Your task to perform on an android device: Show the shopping cart on bestbuy. Search for beats solo 3 on bestbuy, select the first entry, add it to the cart, then select checkout. Image 0: 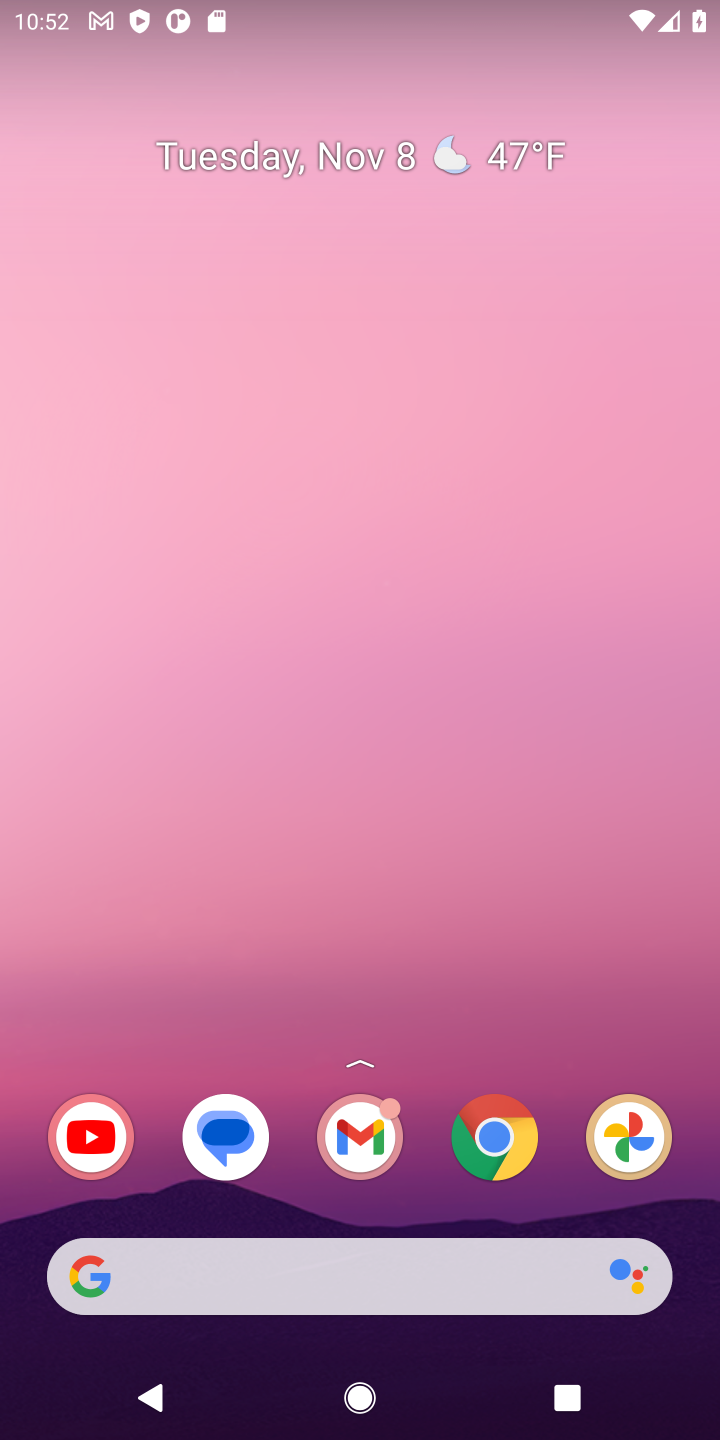
Step 0: click (499, 1131)
Your task to perform on an android device: Show the shopping cart on bestbuy. Search for beats solo 3 on bestbuy, select the first entry, add it to the cart, then select checkout. Image 1: 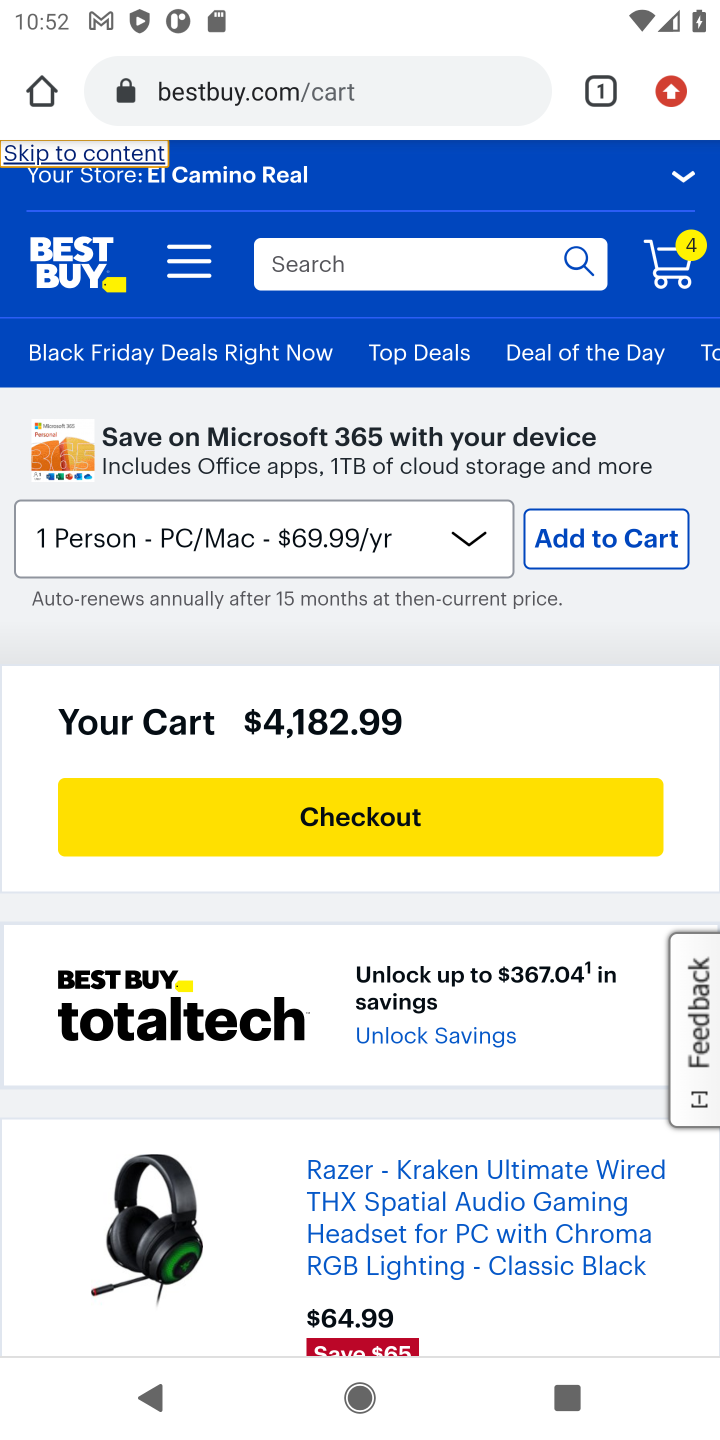
Step 1: click (390, 90)
Your task to perform on an android device: Show the shopping cart on bestbuy. Search for beats solo 3 on bestbuy, select the first entry, add it to the cart, then select checkout. Image 2: 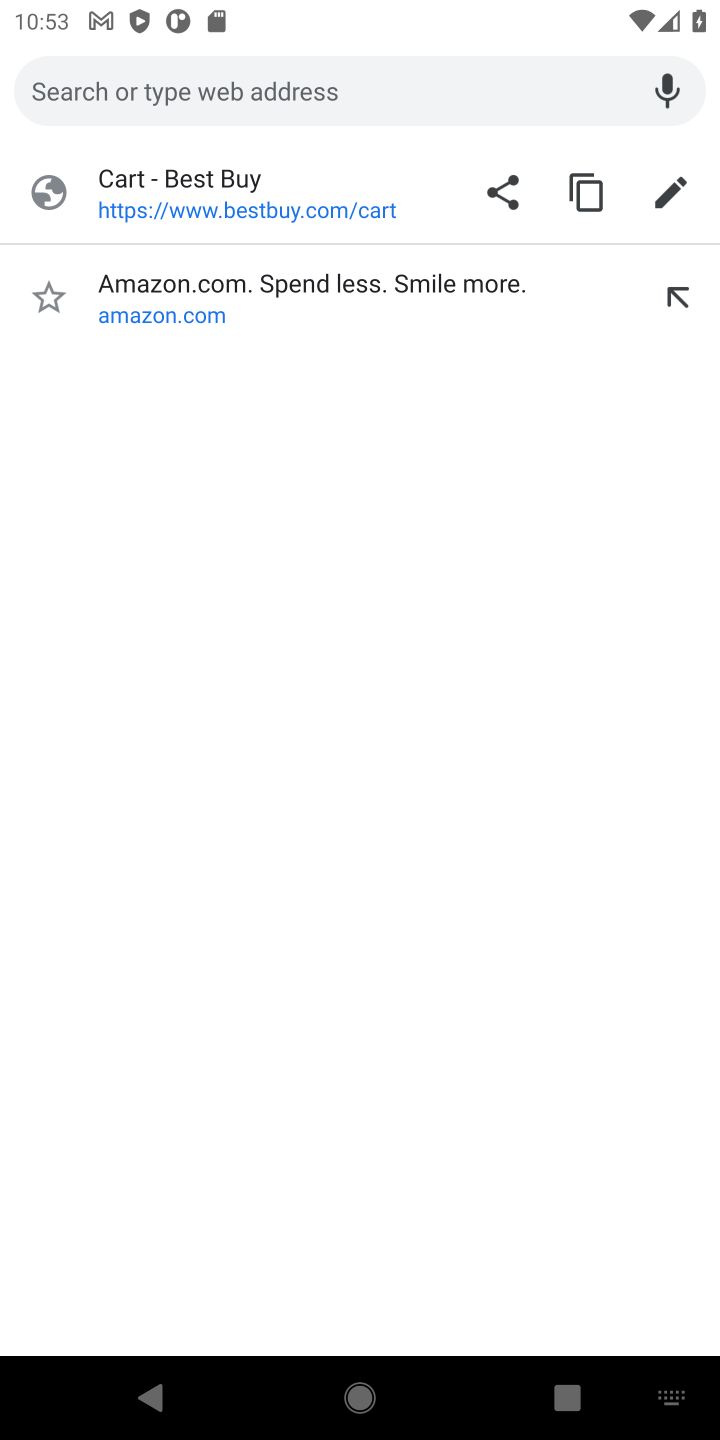
Step 2: type "bestbuy"
Your task to perform on an android device: Show the shopping cart on bestbuy. Search for beats solo 3 on bestbuy, select the first entry, add it to the cart, then select checkout. Image 3: 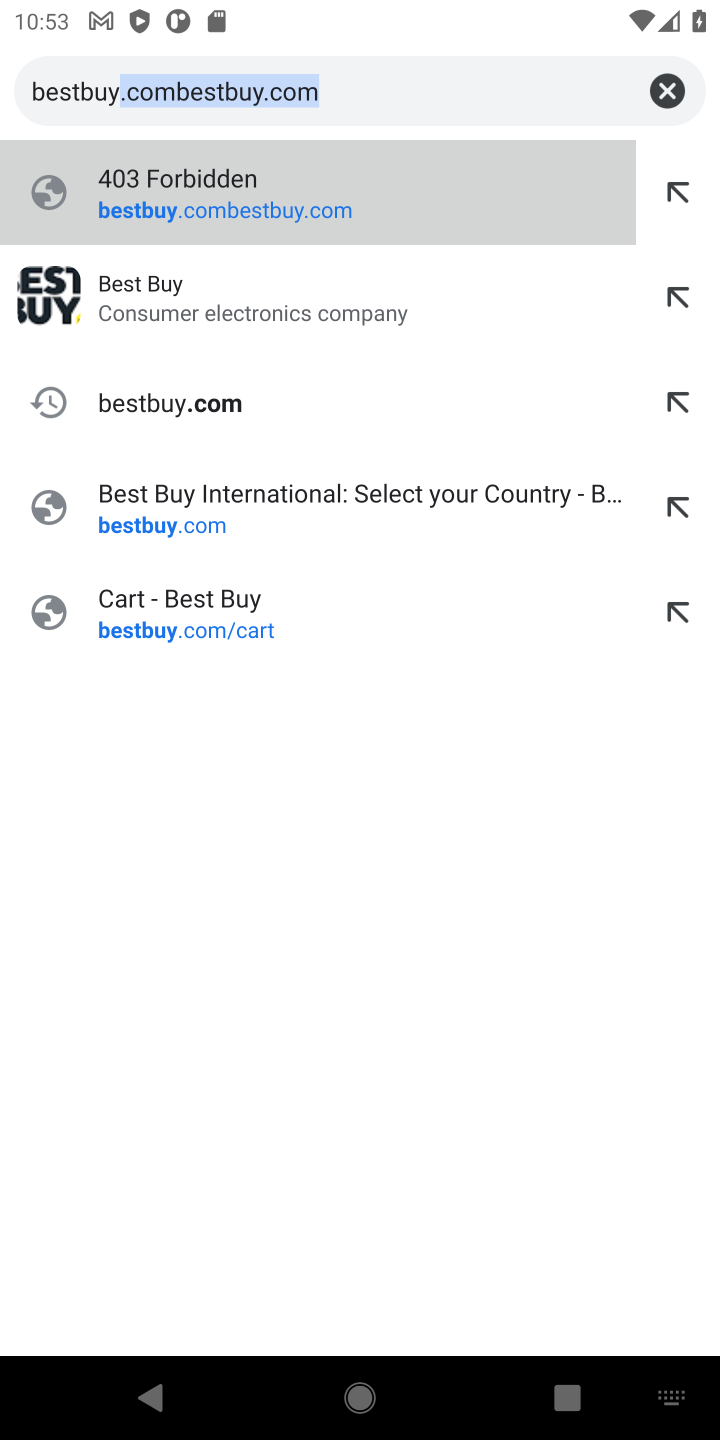
Step 3: click (167, 283)
Your task to perform on an android device: Show the shopping cart on bestbuy. Search for beats solo 3 on bestbuy, select the first entry, add it to the cart, then select checkout. Image 4: 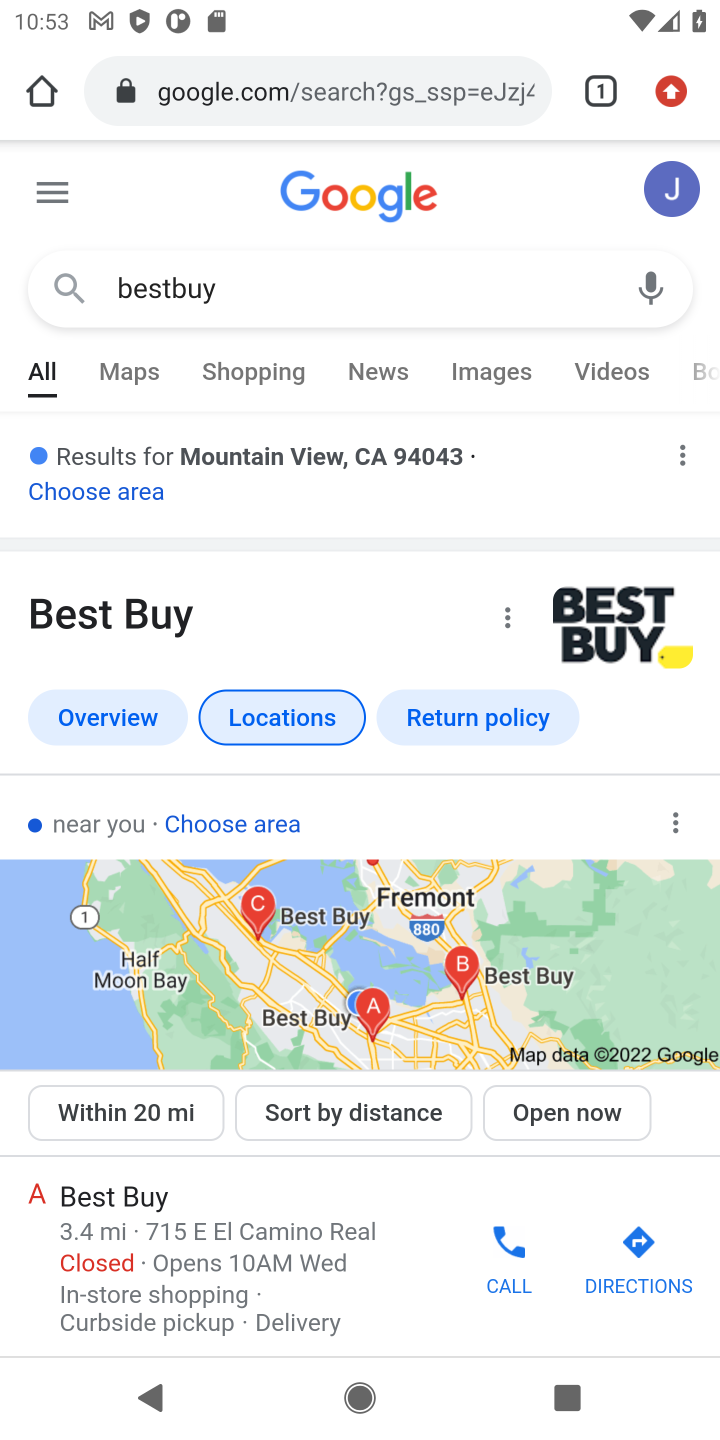
Step 4: drag from (297, 1024) to (358, 444)
Your task to perform on an android device: Show the shopping cart on bestbuy. Search for beats solo 3 on bestbuy, select the first entry, add it to the cart, then select checkout. Image 5: 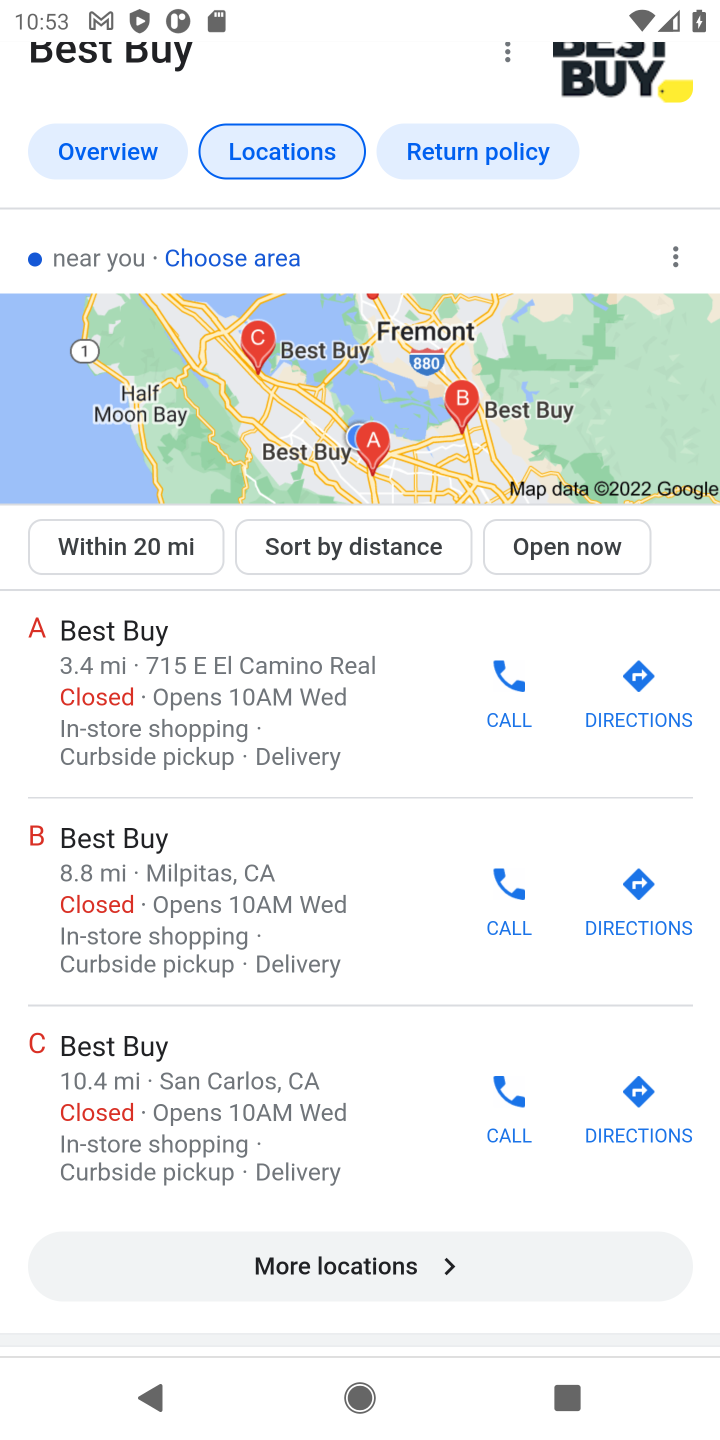
Step 5: drag from (291, 993) to (497, 239)
Your task to perform on an android device: Show the shopping cart on bestbuy. Search for beats solo 3 on bestbuy, select the first entry, add it to the cart, then select checkout. Image 6: 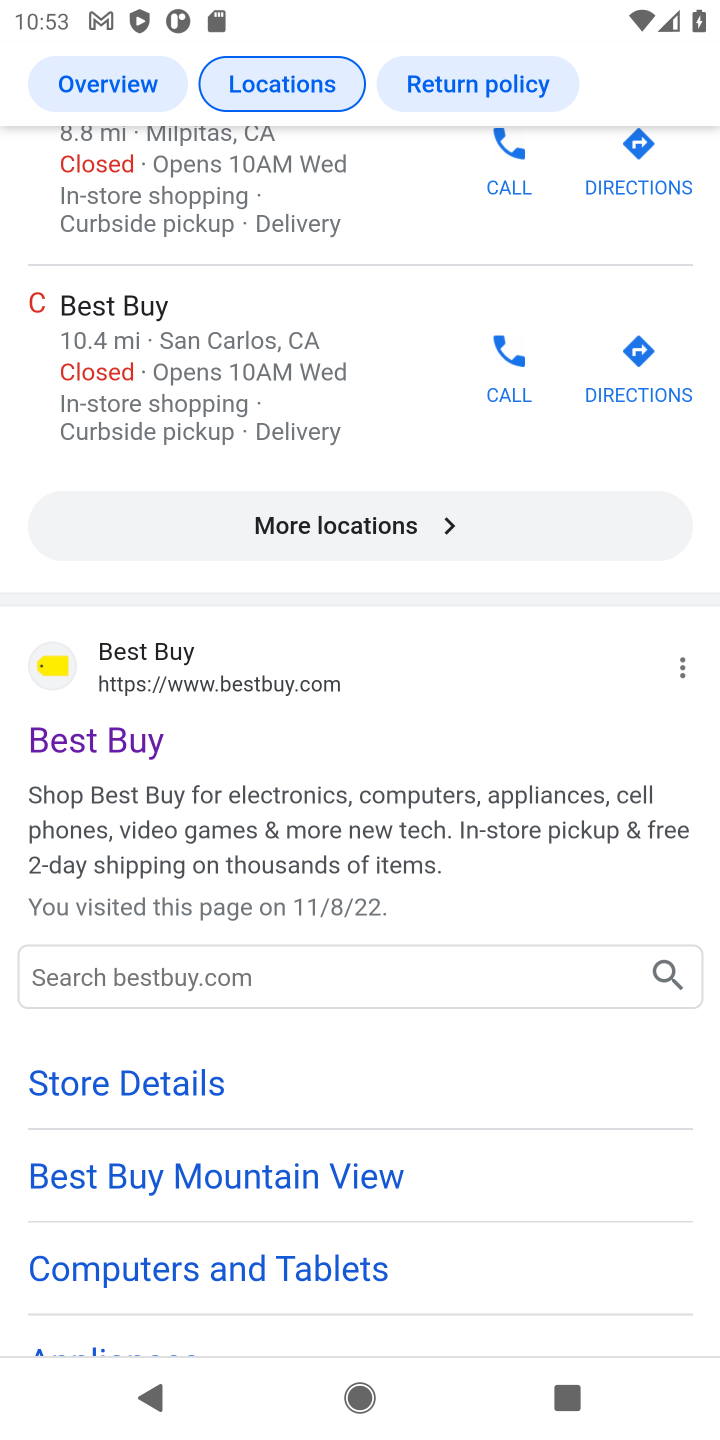
Step 6: click (127, 758)
Your task to perform on an android device: Show the shopping cart on bestbuy. Search for beats solo 3 on bestbuy, select the first entry, add it to the cart, then select checkout. Image 7: 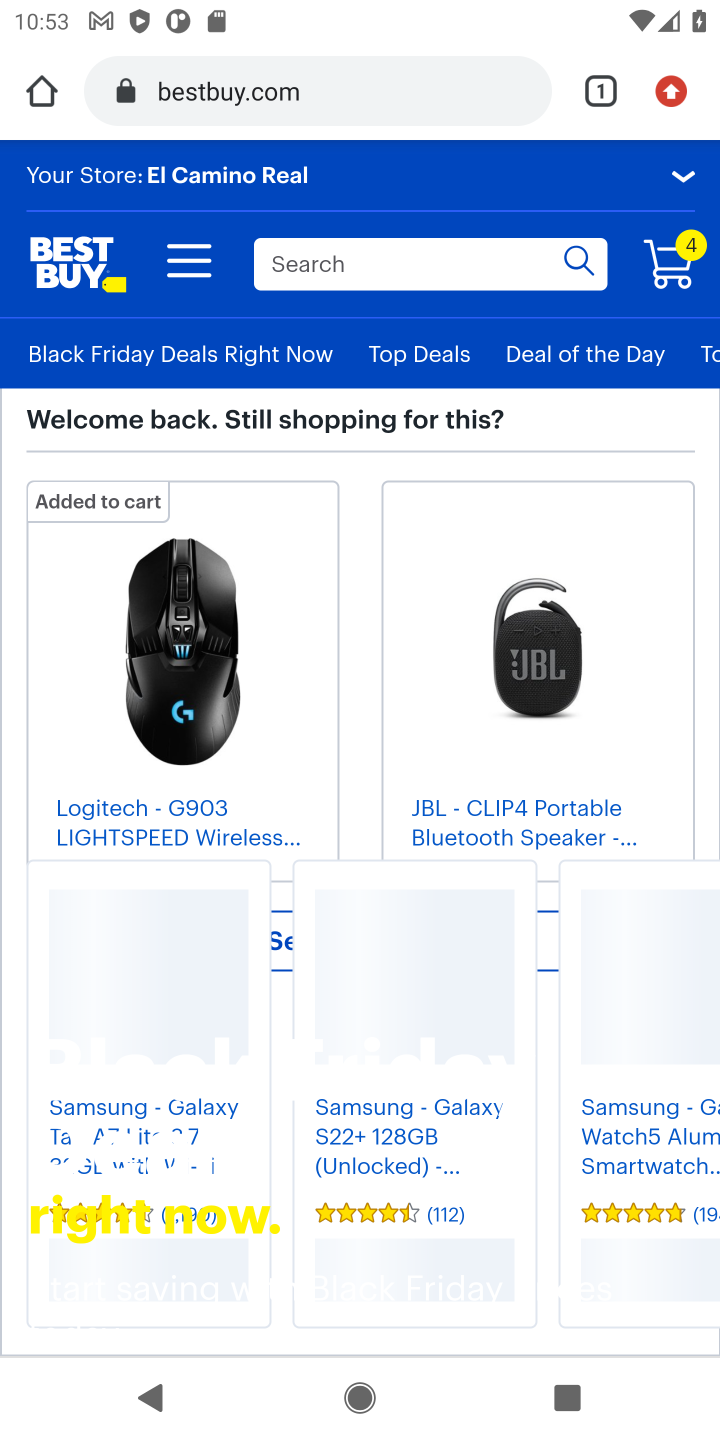
Step 7: click (496, 253)
Your task to perform on an android device: Show the shopping cart on bestbuy. Search for beats solo 3 on bestbuy, select the first entry, add it to the cart, then select checkout. Image 8: 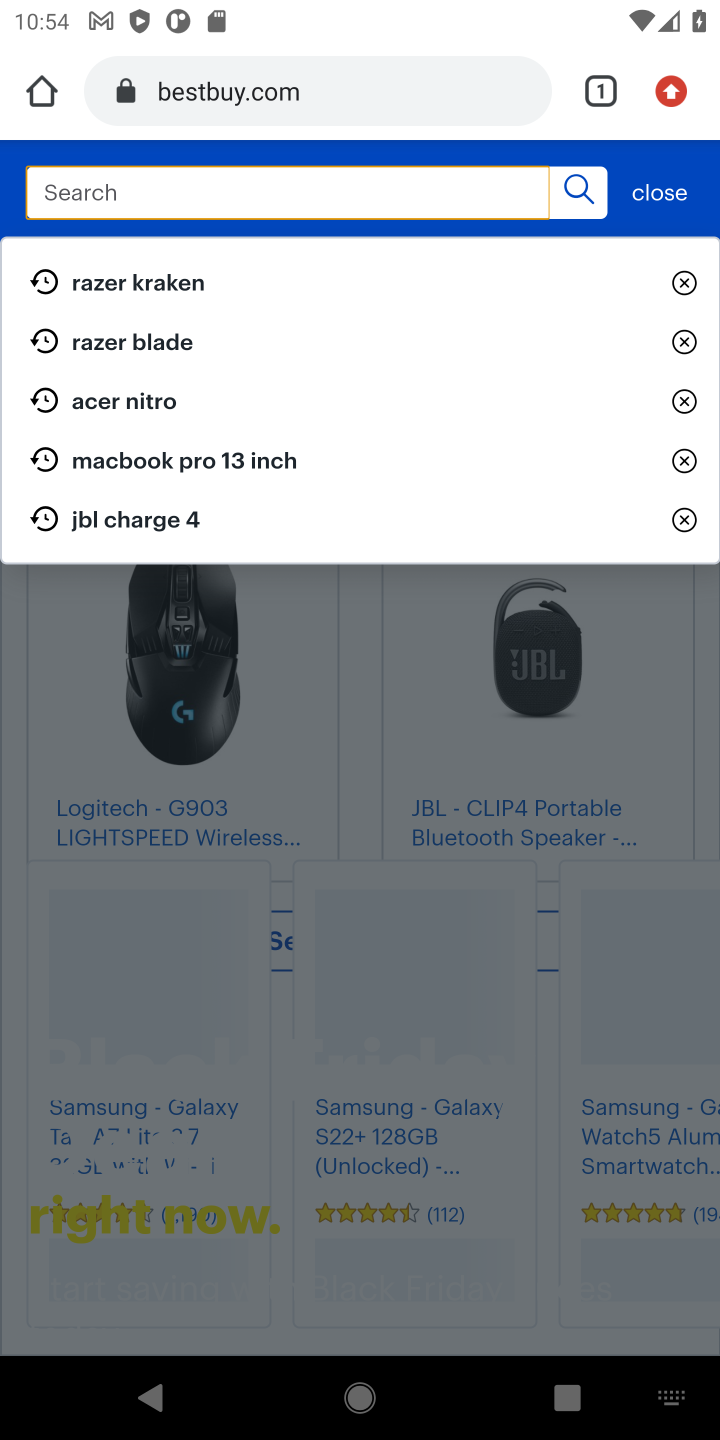
Step 8: type "beats solo 3"
Your task to perform on an android device: Show the shopping cart on bestbuy. Search for beats solo 3 on bestbuy, select the first entry, add it to the cart, then select checkout. Image 9: 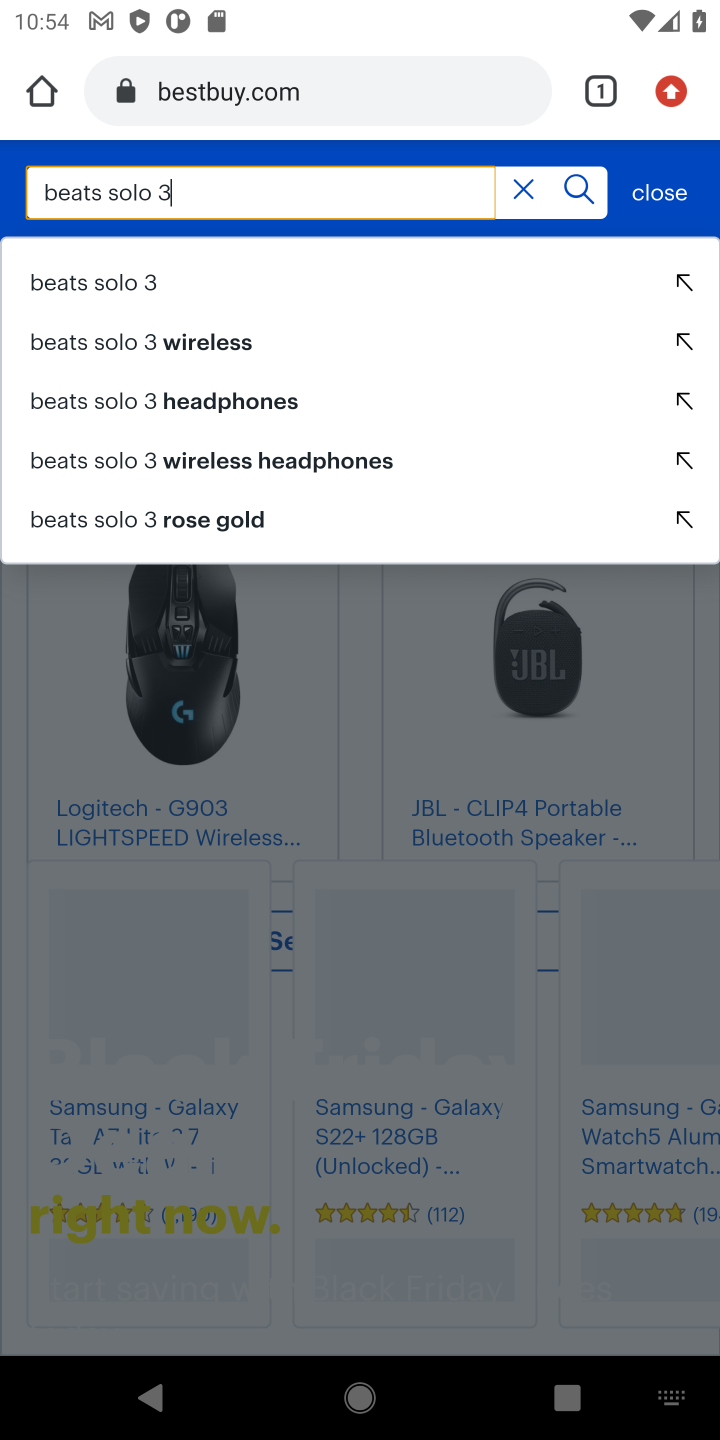
Step 9: click (124, 291)
Your task to perform on an android device: Show the shopping cart on bestbuy. Search for beats solo 3 on bestbuy, select the first entry, add it to the cart, then select checkout. Image 10: 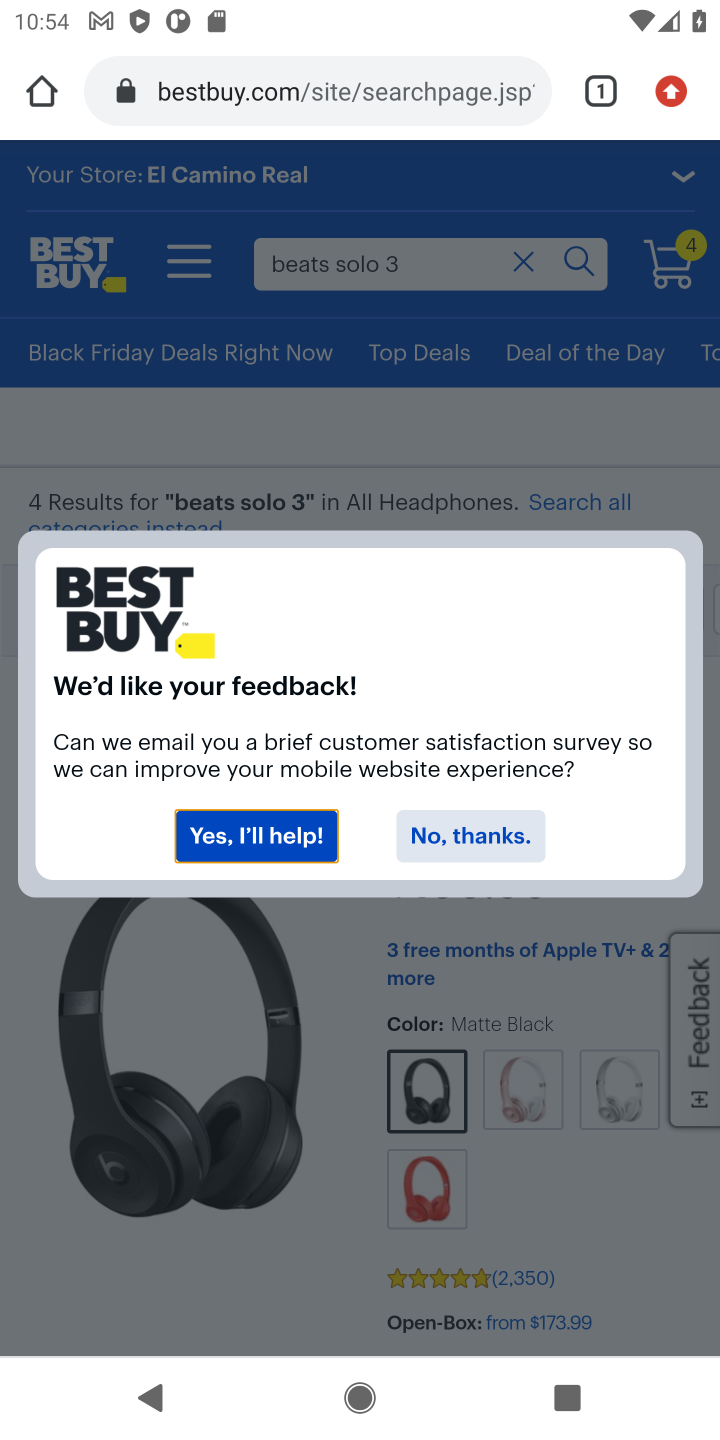
Step 10: click (438, 840)
Your task to perform on an android device: Show the shopping cart on bestbuy. Search for beats solo 3 on bestbuy, select the first entry, add it to the cart, then select checkout. Image 11: 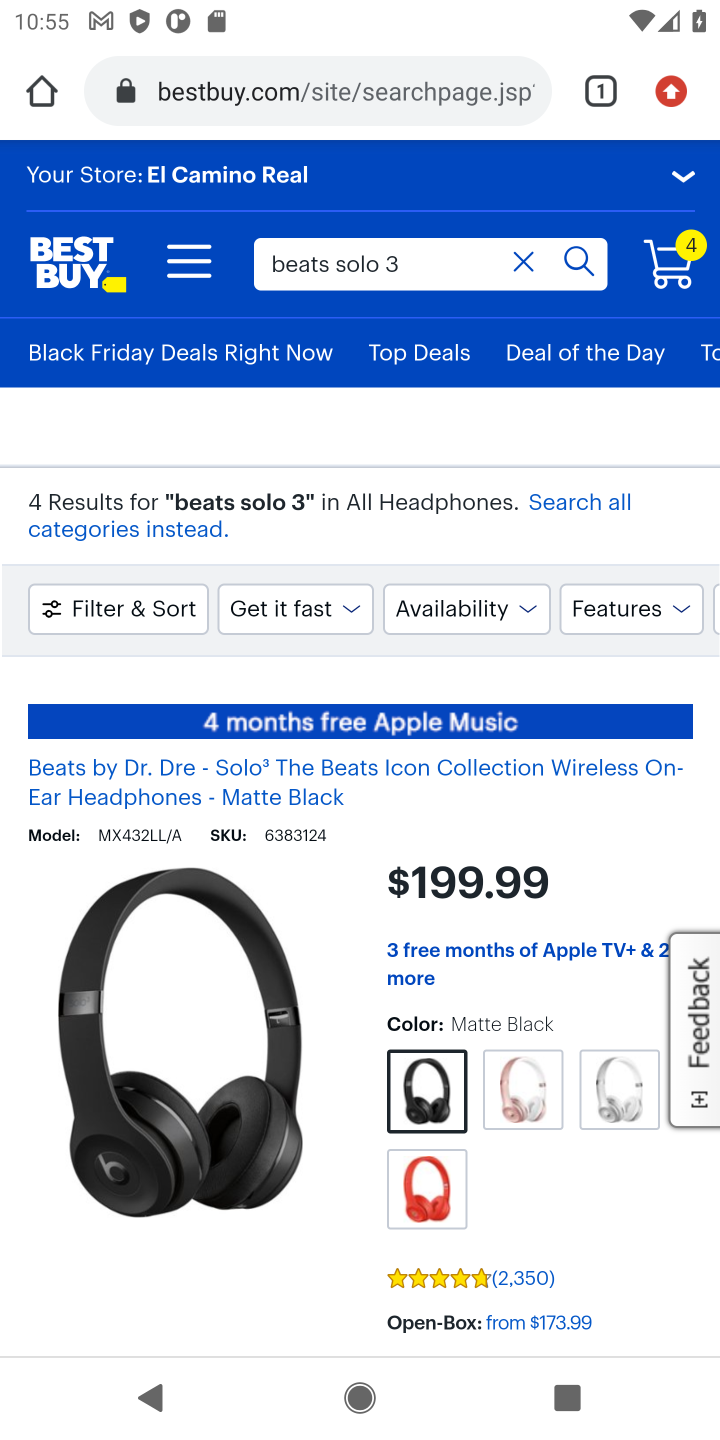
Step 11: click (507, 891)
Your task to perform on an android device: Show the shopping cart on bestbuy. Search for beats solo 3 on bestbuy, select the first entry, add it to the cart, then select checkout. Image 12: 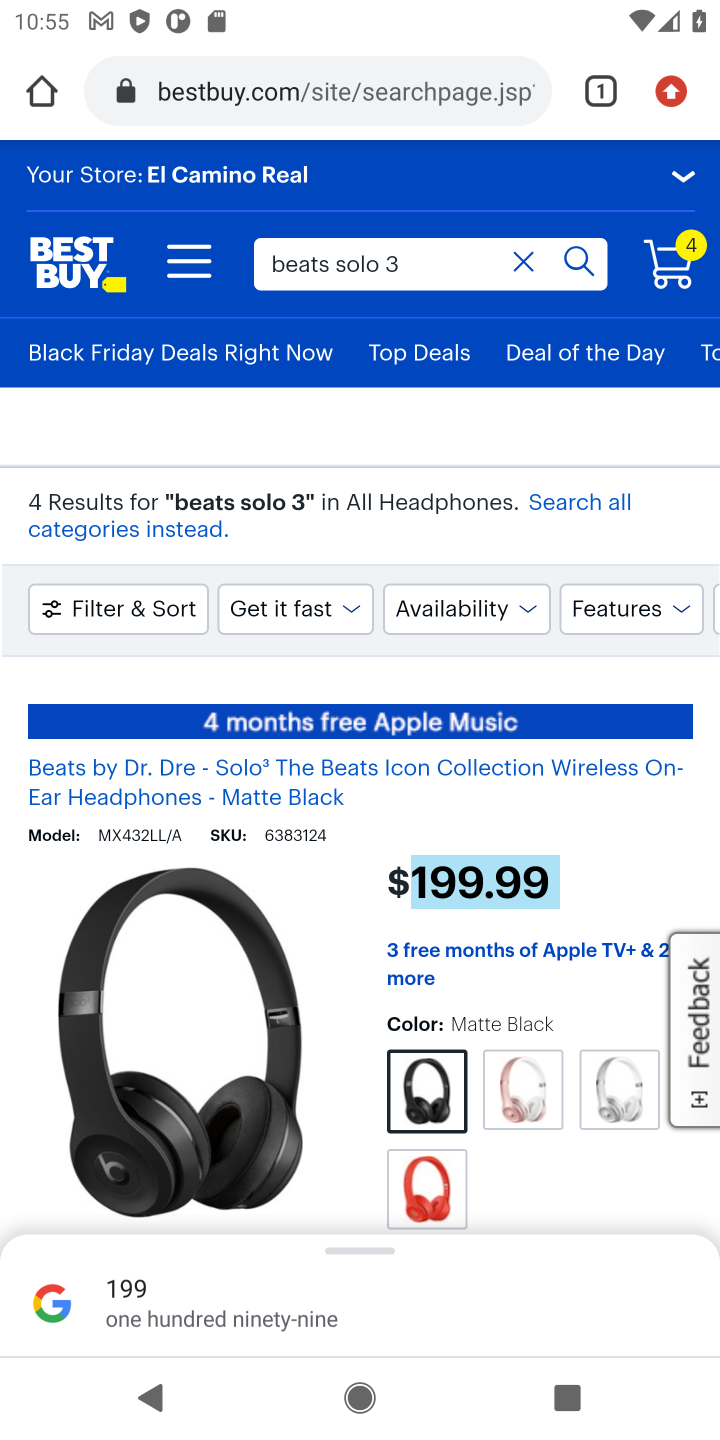
Step 12: click (364, 983)
Your task to perform on an android device: Show the shopping cart on bestbuy. Search for beats solo 3 on bestbuy, select the first entry, add it to the cart, then select checkout. Image 13: 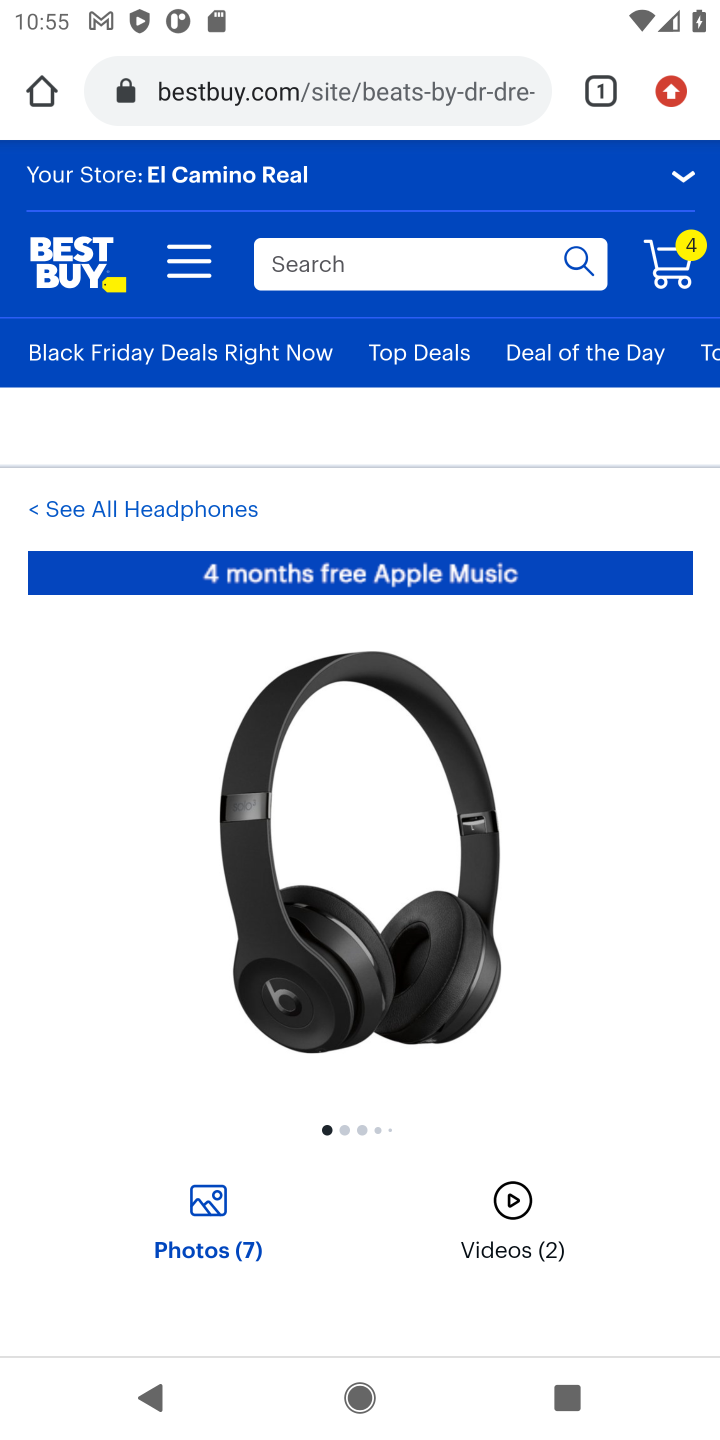
Step 13: drag from (487, 1017) to (572, 401)
Your task to perform on an android device: Show the shopping cart on bestbuy. Search for beats solo 3 on bestbuy, select the first entry, add it to the cart, then select checkout. Image 14: 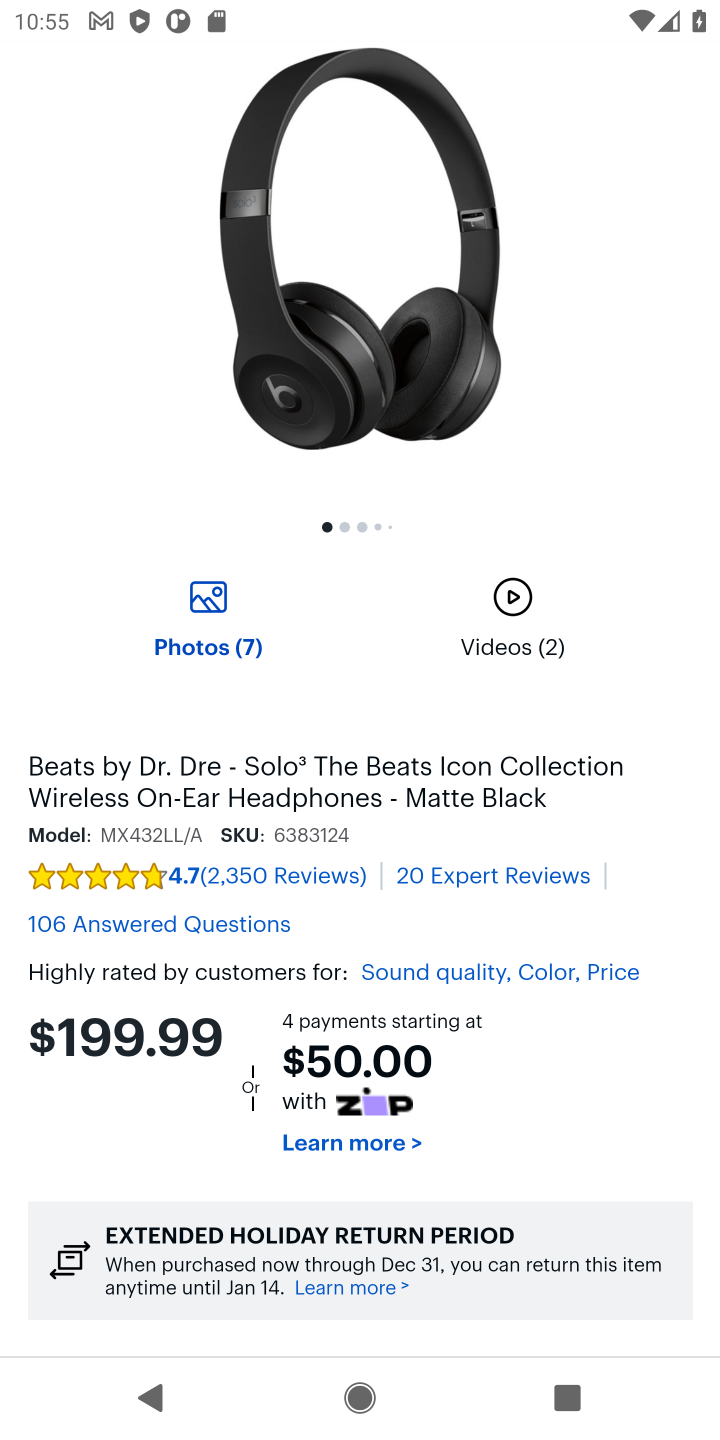
Step 14: drag from (514, 994) to (542, 436)
Your task to perform on an android device: Show the shopping cart on bestbuy. Search for beats solo 3 on bestbuy, select the first entry, add it to the cart, then select checkout. Image 15: 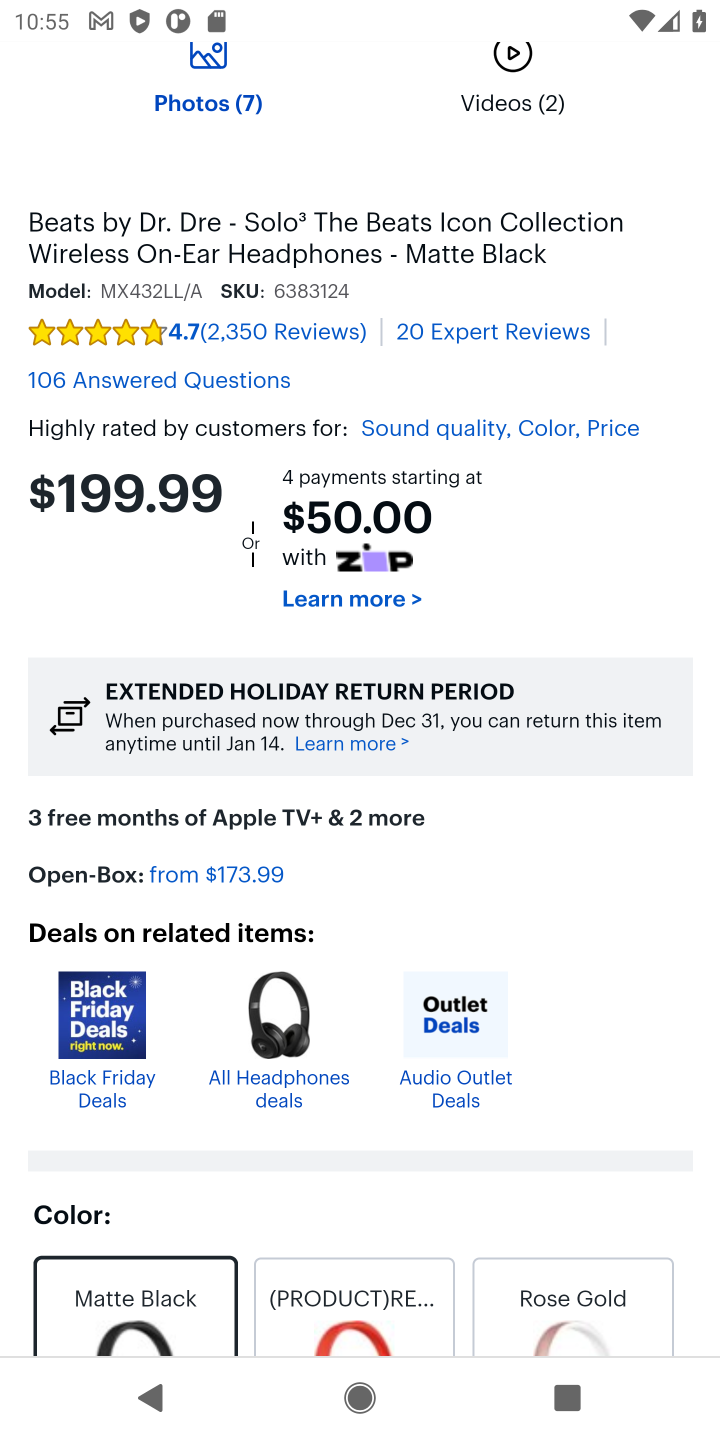
Step 15: drag from (516, 936) to (533, 399)
Your task to perform on an android device: Show the shopping cart on bestbuy. Search for beats solo 3 on bestbuy, select the first entry, add it to the cart, then select checkout. Image 16: 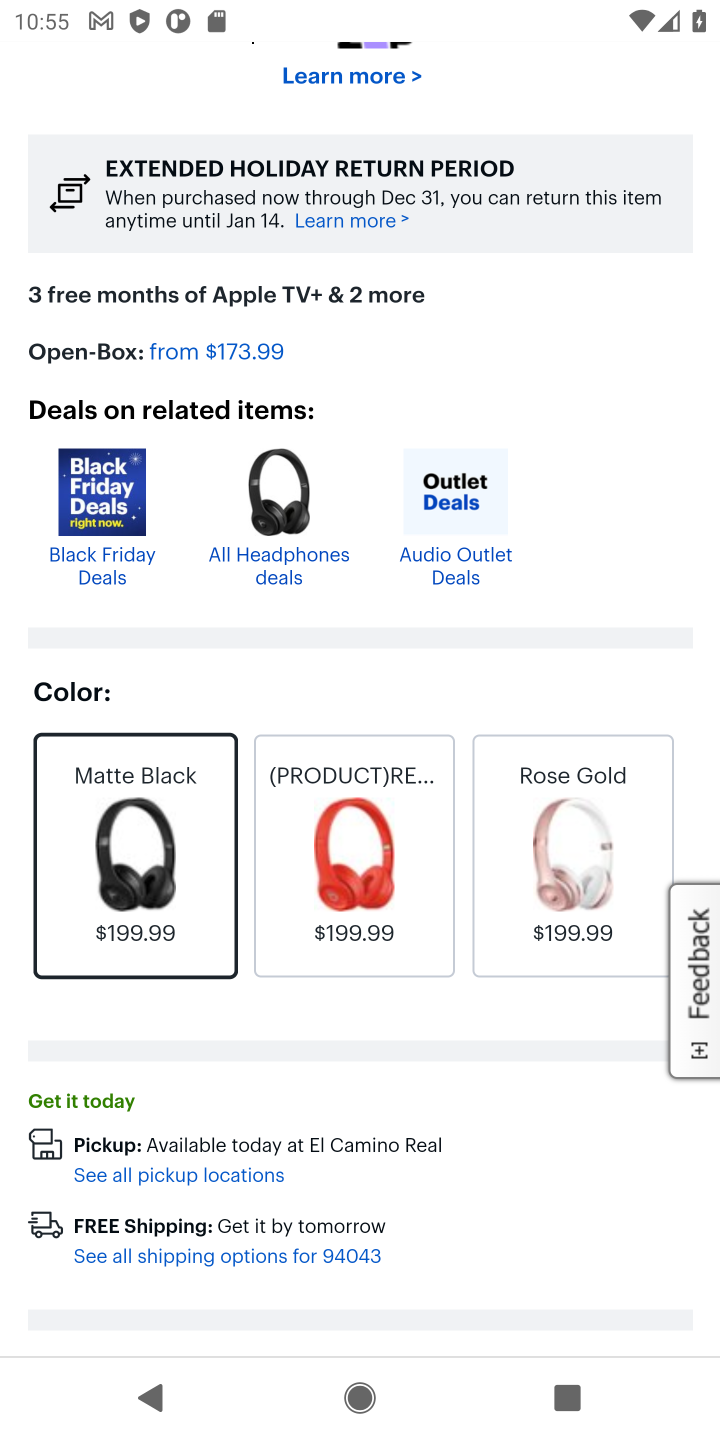
Step 16: drag from (477, 1050) to (501, 163)
Your task to perform on an android device: Show the shopping cart on bestbuy. Search for beats solo 3 on bestbuy, select the first entry, add it to the cart, then select checkout. Image 17: 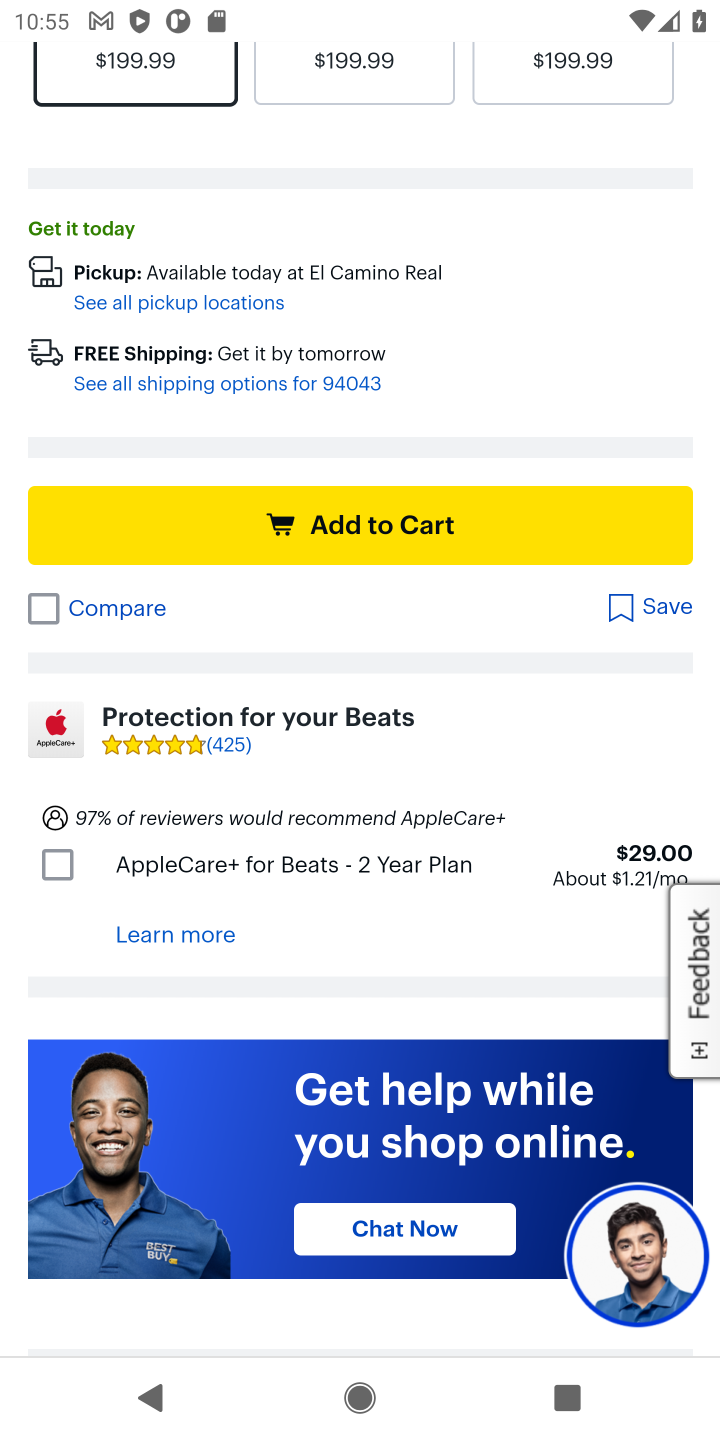
Step 17: click (359, 521)
Your task to perform on an android device: Show the shopping cart on bestbuy. Search for beats solo 3 on bestbuy, select the first entry, add it to the cart, then select checkout. Image 18: 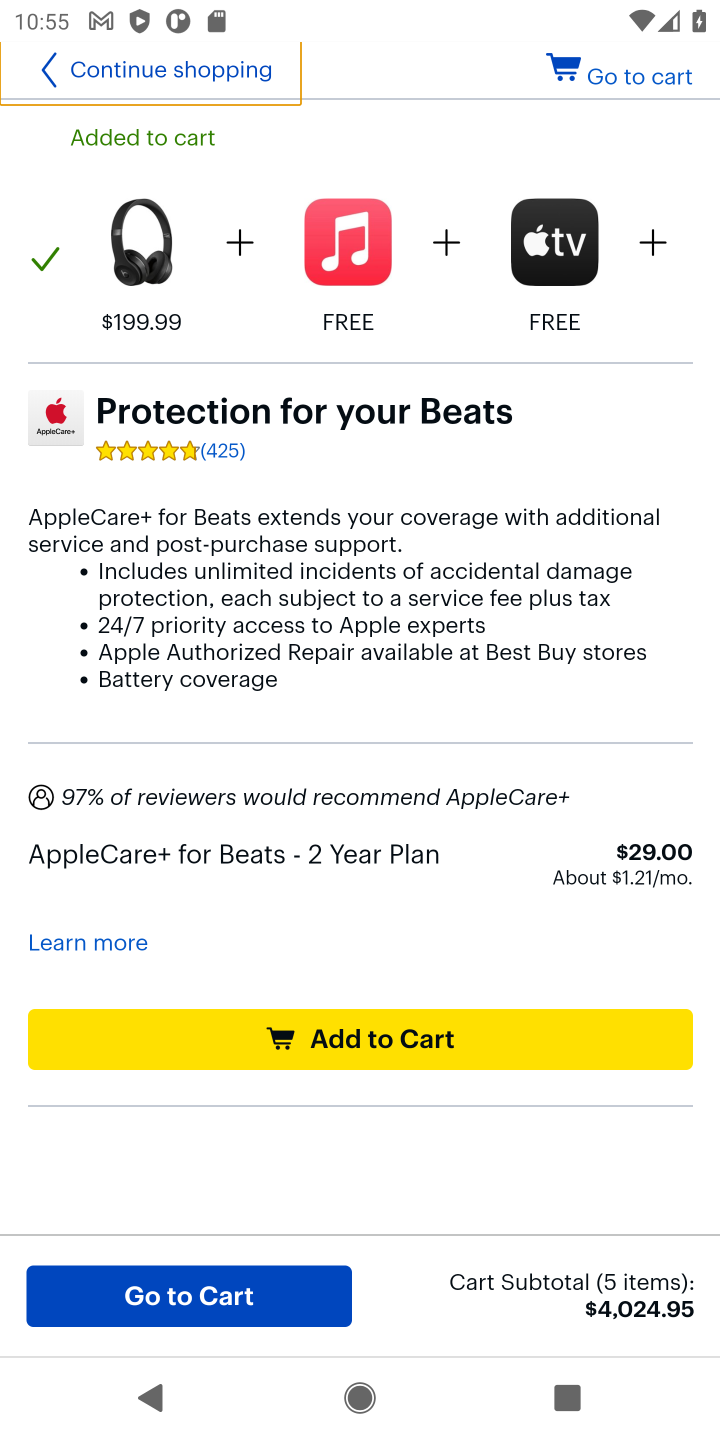
Step 18: click (177, 1287)
Your task to perform on an android device: Show the shopping cart on bestbuy. Search for beats solo 3 on bestbuy, select the first entry, add it to the cart, then select checkout. Image 19: 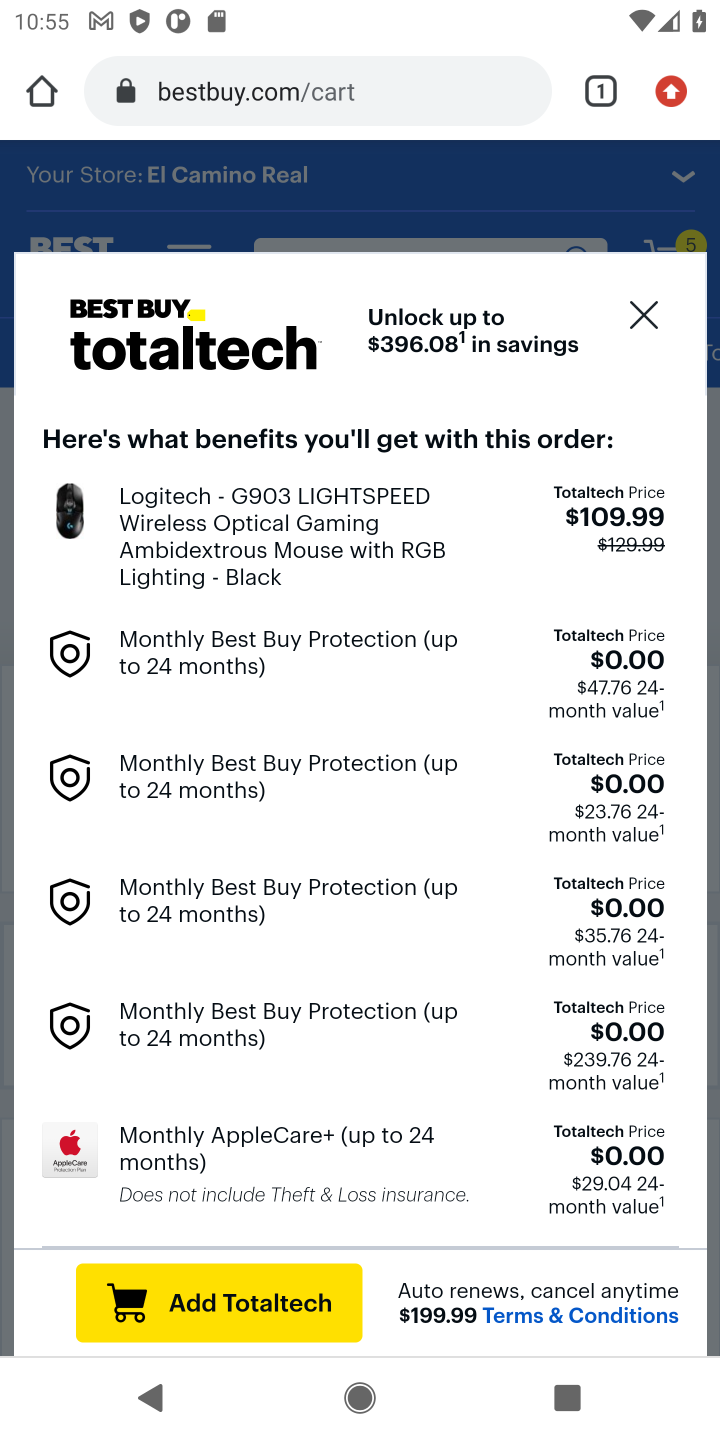
Step 19: click (640, 307)
Your task to perform on an android device: Show the shopping cart on bestbuy. Search for beats solo 3 on bestbuy, select the first entry, add it to the cart, then select checkout. Image 20: 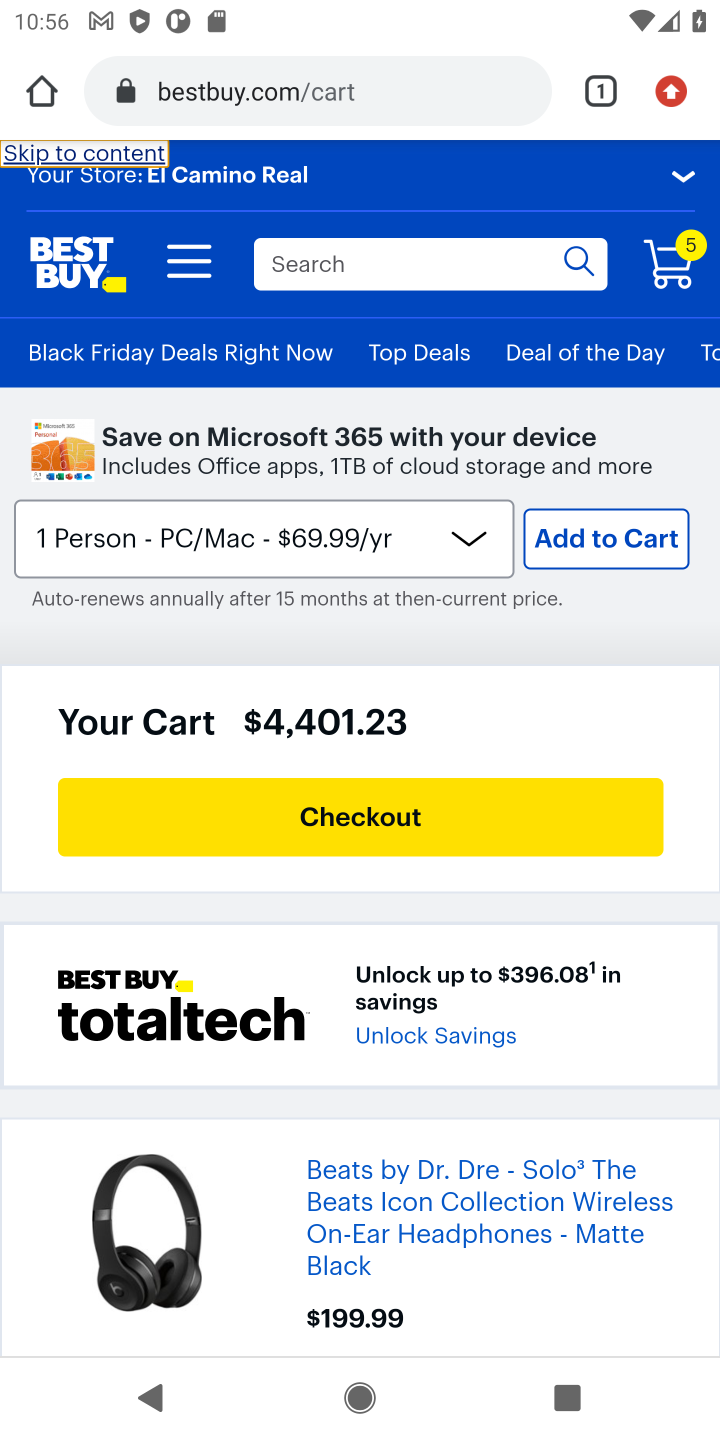
Step 20: click (351, 833)
Your task to perform on an android device: Show the shopping cart on bestbuy. Search for beats solo 3 on bestbuy, select the first entry, add it to the cart, then select checkout. Image 21: 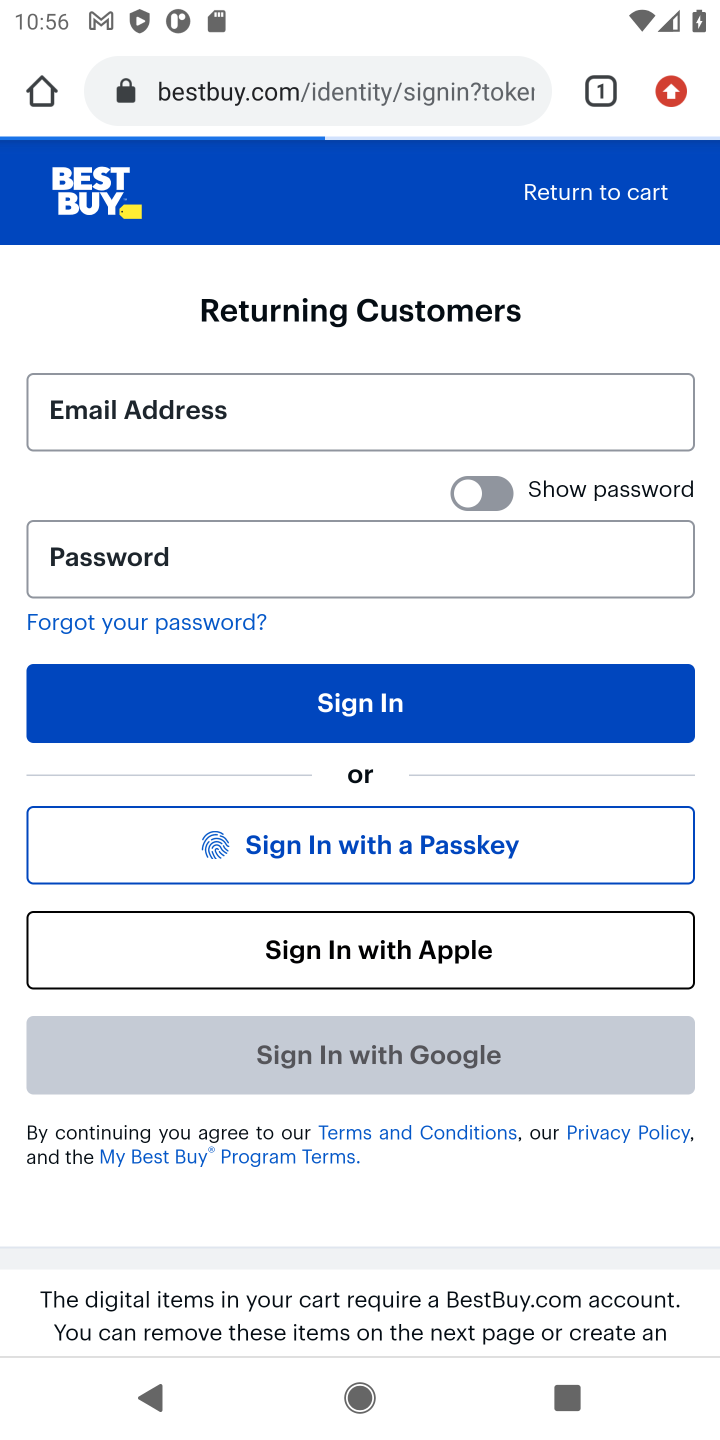
Step 21: task complete